Your task to perform on an android device: Open Chrome and go to the settings page Image 0: 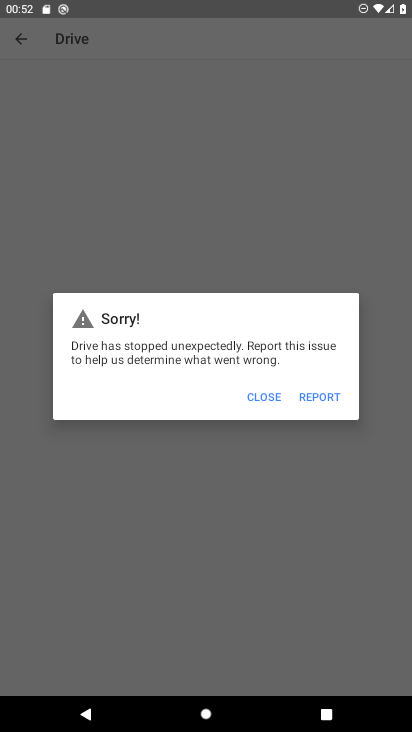
Step 0: press home button
Your task to perform on an android device: Open Chrome and go to the settings page Image 1: 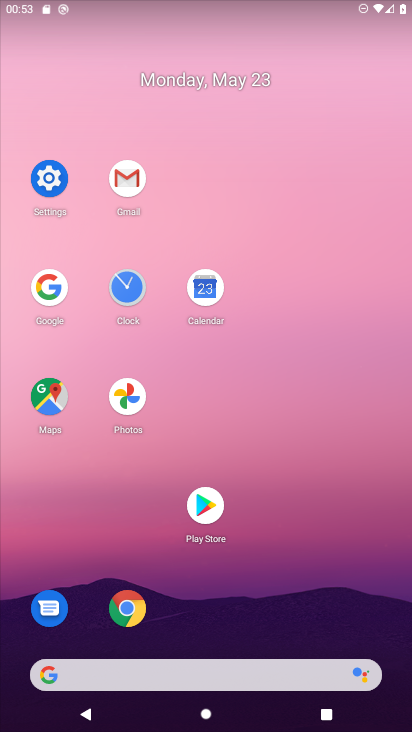
Step 1: click (123, 604)
Your task to perform on an android device: Open Chrome and go to the settings page Image 2: 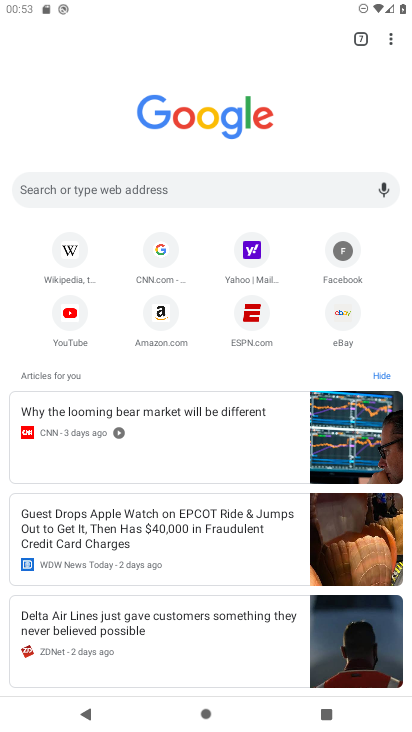
Step 2: click (396, 44)
Your task to perform on an android device: Open Chrome and go to the settings page Image 3: 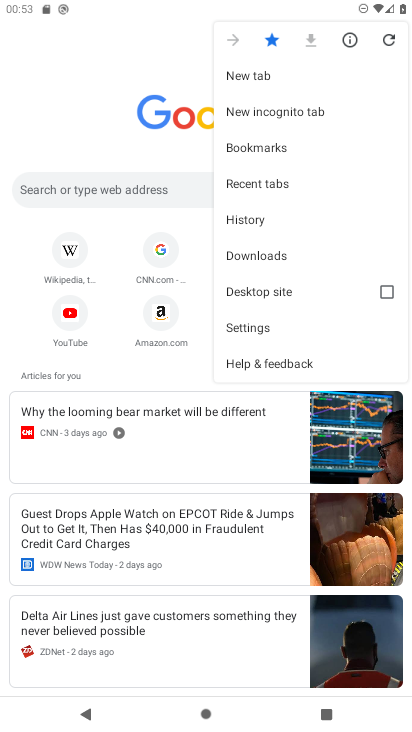
Step 3: click (263, 328)
Your task to perform on an android device: Open Chrome and go to the settings page Image 4: 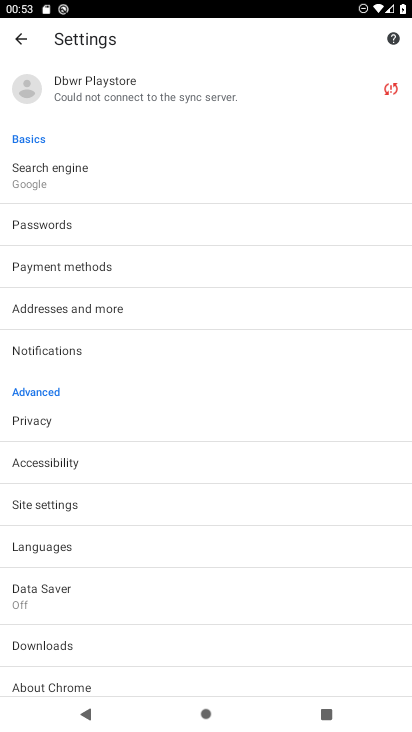
Step 4: task complete